Your task to perform on an android device: Go to CNN.com Image 0: 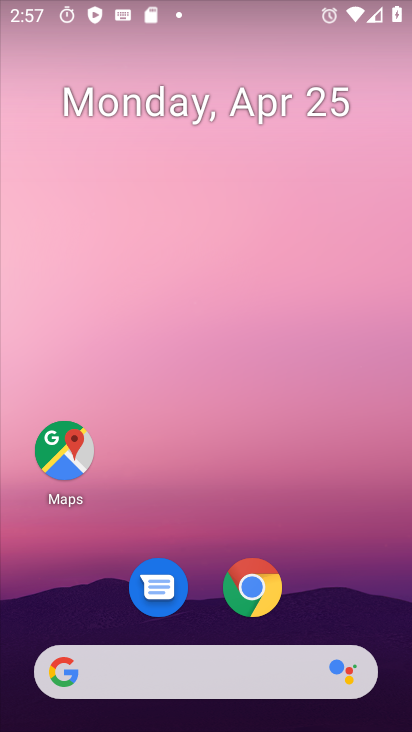
Step 0: click (245, 582)
Your task to perform on an android device: Go to CNN.com Image 1: 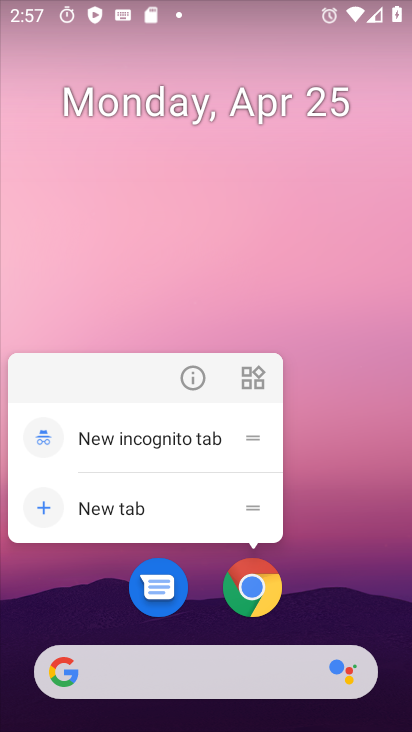
Step 1: drag from (354, 575) to (346, 108)
Your task to perform on an android device: Go to CNN.com Image 2: 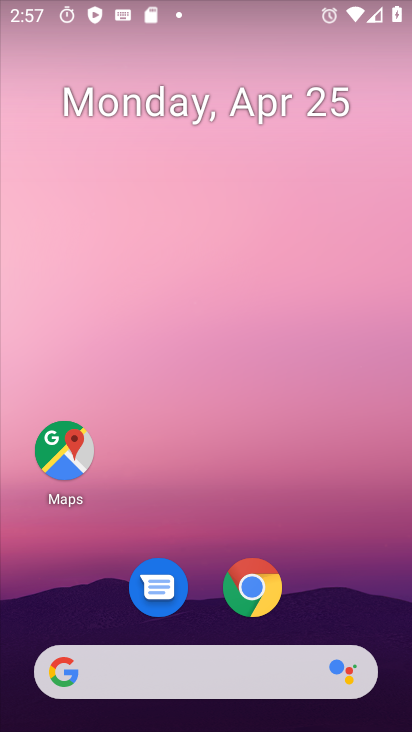
Step 2: drag from (339, 424) to (316, 3)
Your task to perform on an android device: Go to CNN.com Image 3: 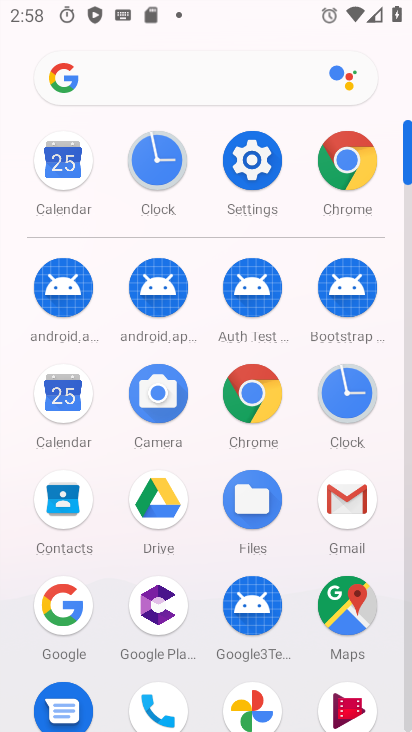
Step 3: click (241, 400)
Your task to perform on an android device: Go to CNN.com Image 4: 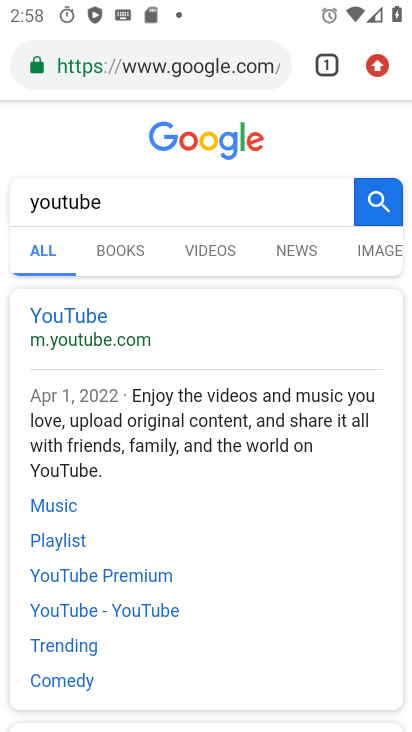
Step 4: click (219, 65)
Your task to perform on an android device: Go to CNN.com Image 5: 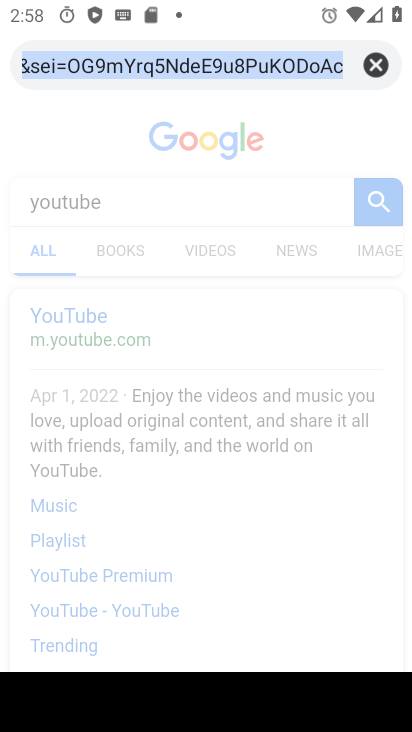
Step 5: type "cnn.com"
Your task to perform on an android device: Go to CNN.com Image 6: 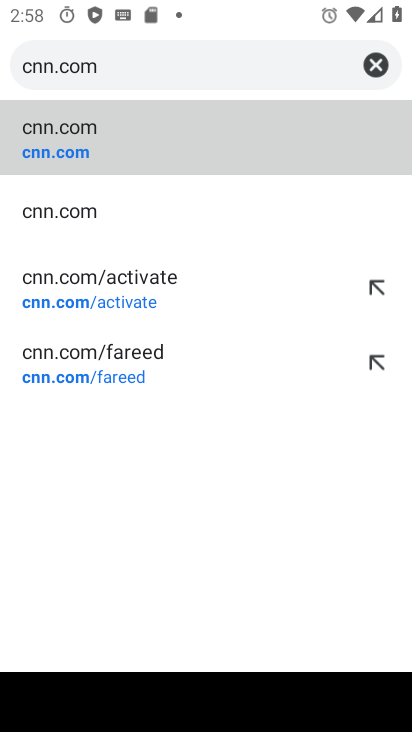
Step 6: click (21, 138)
Your task to perform on an android device: Go to CNN.com Image 7: 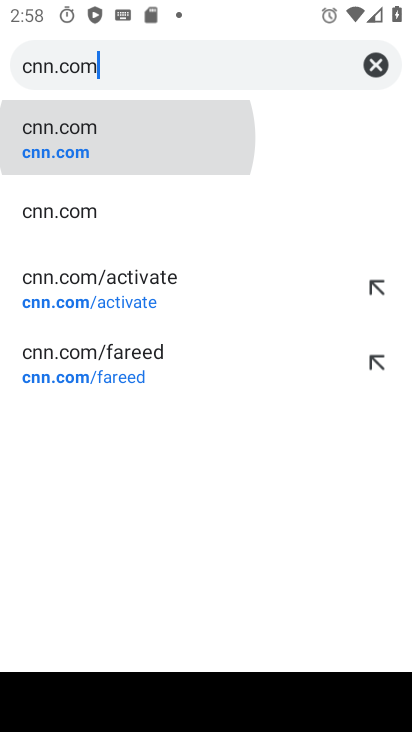
Step 7: click (74, 140)
Your task to perform on an android device: Go to CNN.com Image 8: 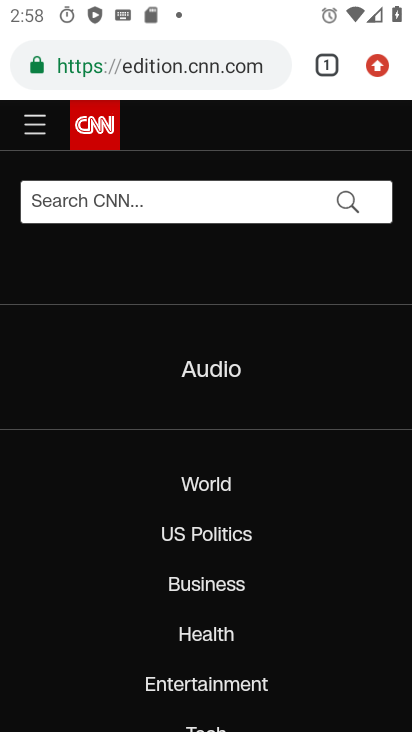
Step 8: task complete